Your task to perform on an android device: toggle airplane mode Image 0: 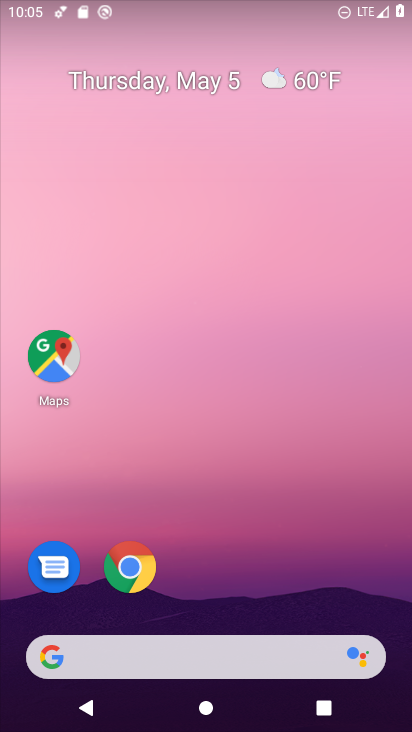
Step 0: drag from (223, 661) to (184, 156)
Your task to perform on an android device: toggle airplane mode Image 1: 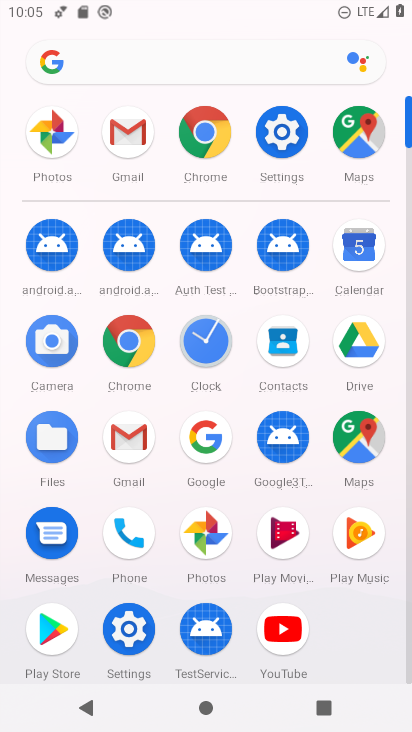
Step 1: click (283, 128)
Your task to perform on an android device: toggle airplane mode Image 2: 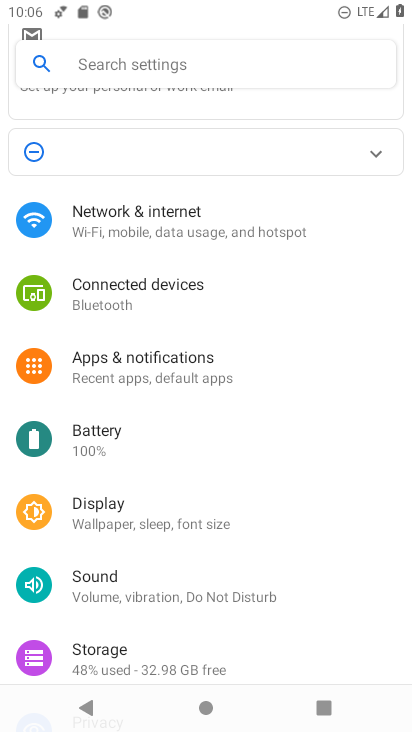
Step 2: click (117, 226)
Your task to perform on an android device: toggle airplane mode Image 3: 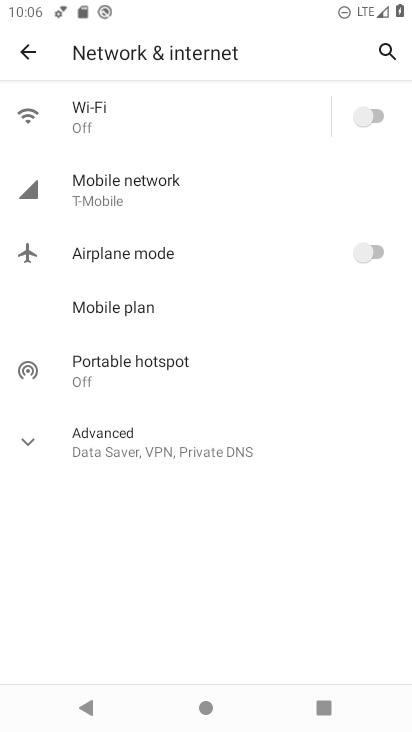
Step 3: click (380, 253)
Your task to perform on an android device: toggle airplane mode Image 4: 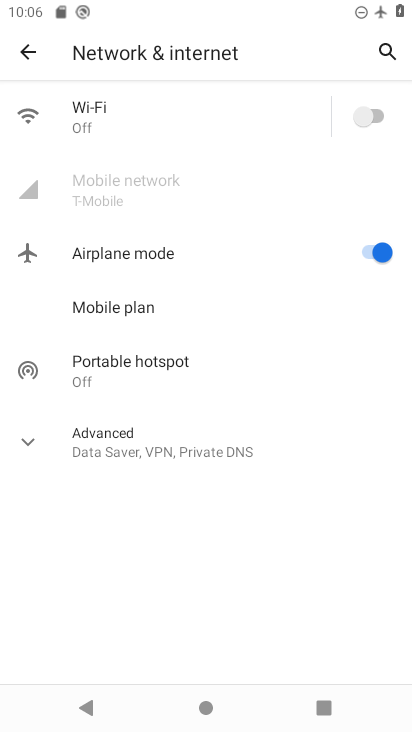
Step 4: task complete